Your task to perform on an android device: allow notifications from all sites in the chrome app Image 0: 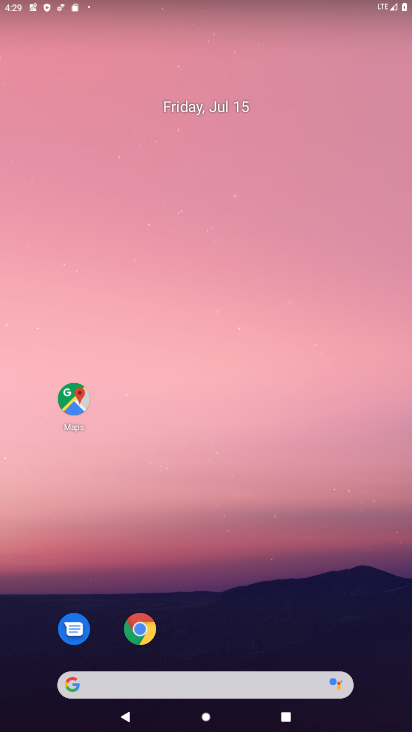
Step 0: click (147, 629)
Your task to perform on an android device: allow notifications from all sites in the chrome app Image 1: 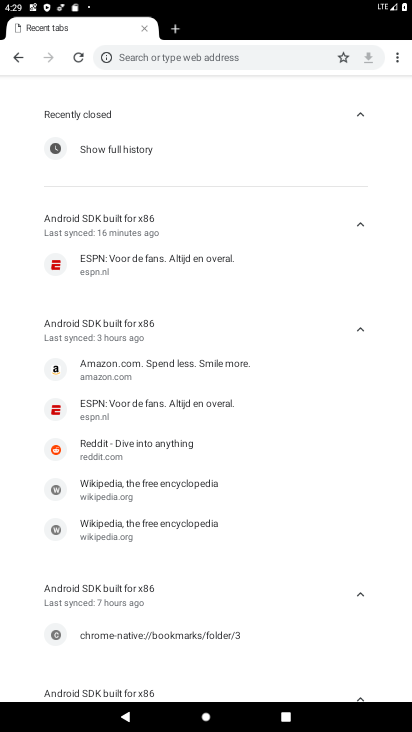
Step 1: click (397, 37)
Your task to perform on an android device: allow notifications from all sites in the chrome app Image 2: 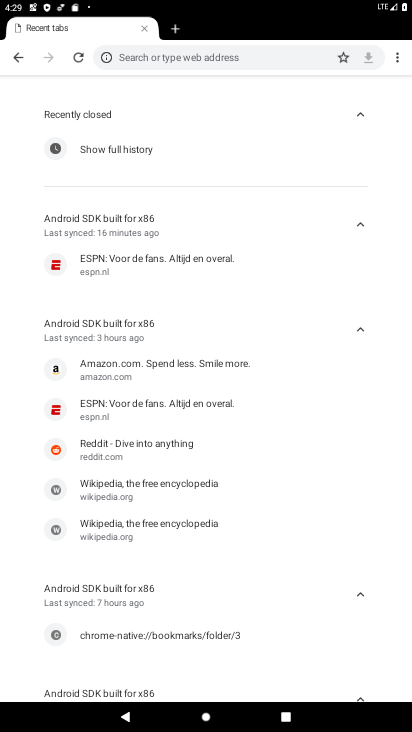
Step 2: click (397, 62)
Your task to perform on an android device: allow notifications from all sites in the chrome app Image 3: 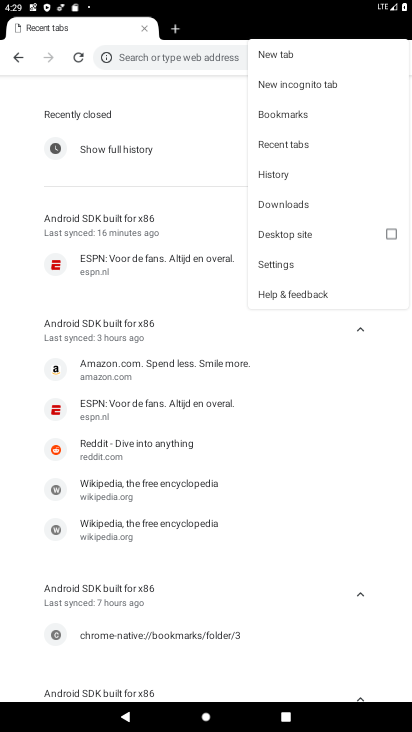
Step 3: click (274, 260)
Your task to perform on an android device: allow notifications from all sites in the chrome app Image 4: 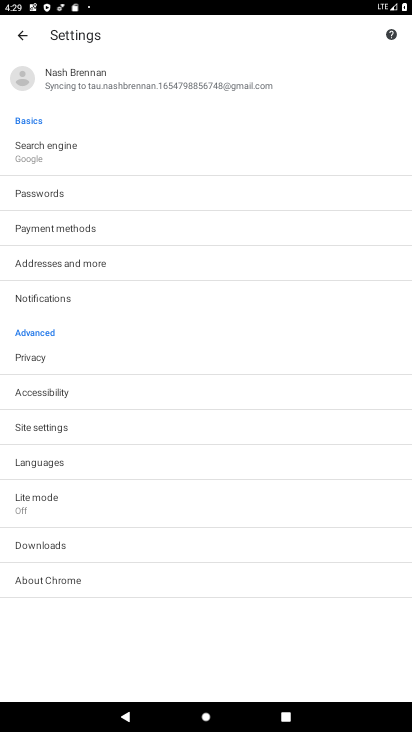
Step 4: click (52, 298)
Your task to perform on an android device: allow notifications from all sites in the chrome app Image 5: 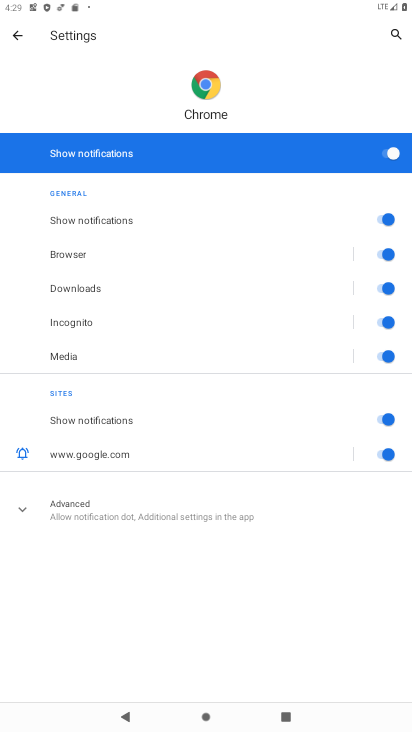
Step 5: task complete